Your task to perform on an android device: Is it going to rain tomorrow? Image 0: 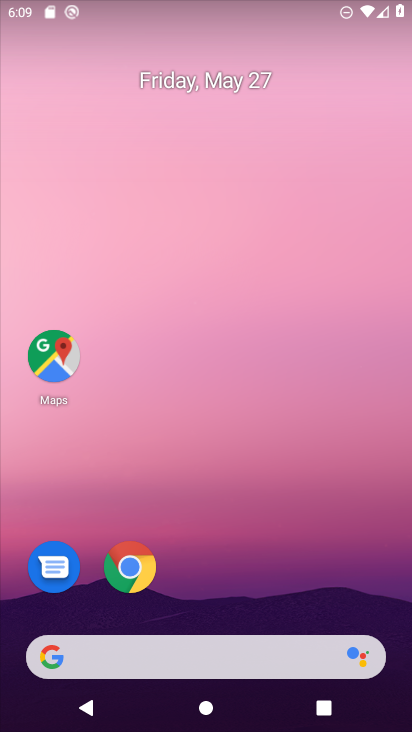
Step 0: drag from (188, 596) to (192, 202)
Your task to perform on an android device: Is it going to rain tomorrow? Image 1: 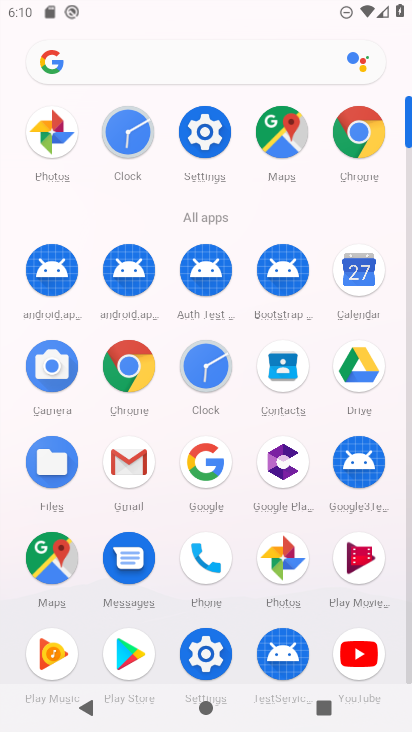
Step 1: click (199, 477)
Your task to perform on an android device: Is it going to rain tomorrow? Image 2: 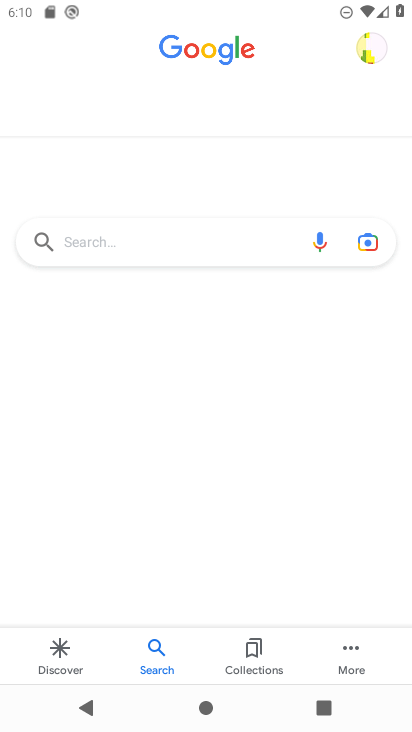
Step 2: click (194, 252)
Your task to perform on an android device: Is it going to rain tomorrow? Image 3: 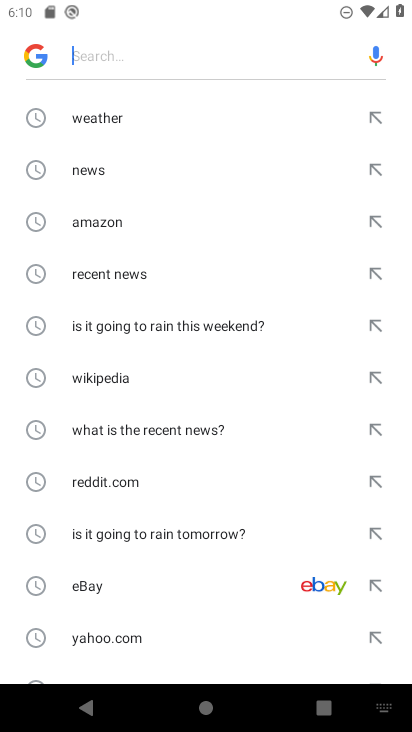
Step 3: click (99, 120)
Your task to perform on an android device: Is it going to rain tomorrow? Image 4: 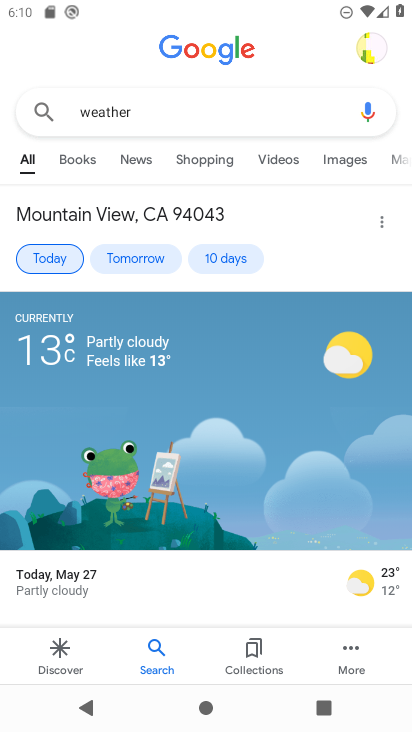
Step 4: click (137, 263)
Your task to perform on an android device: Is it going to rain tomorrow? Image 5: 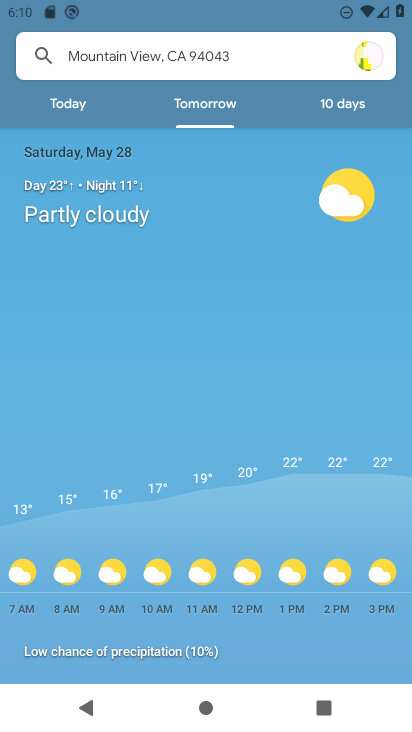
Step 5: task complete